Your task to perform on an android device: turn vacation reply on in the gmail app Image 0: 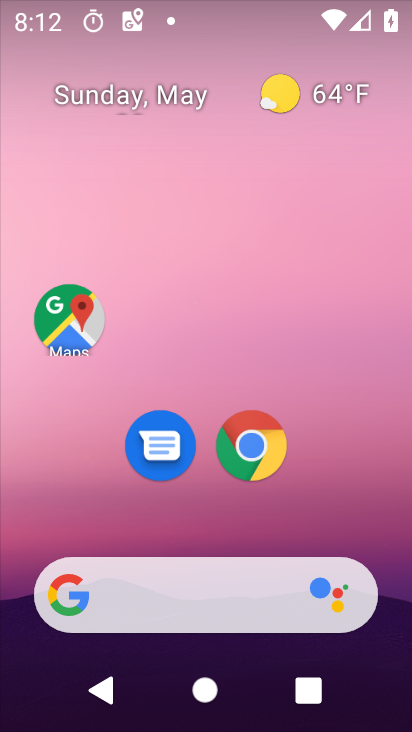
Step 0: drag from (191, 541) to (224, 20)
Your task to perform on an android device: turn vacation reply on in the gmail app Image 1: 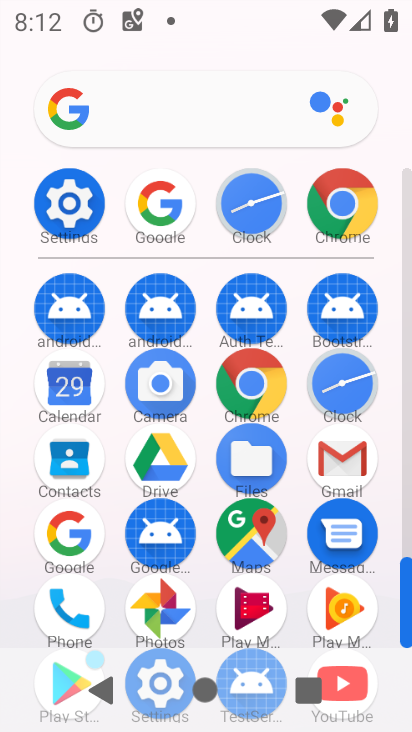
Step 1: click (325, 464)
Your task to perform on an android device: turn vacation reply on in the gmail app Image 2: 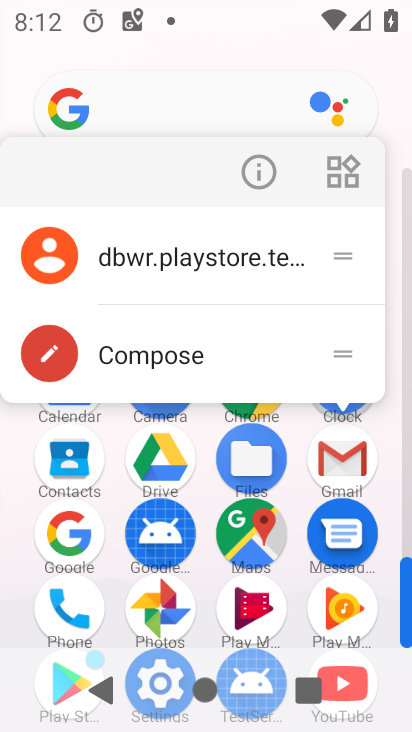
Step 2: click (266, 174)
Your task to perform on an android device: turn vacation reply on in the gmail app Image 3: 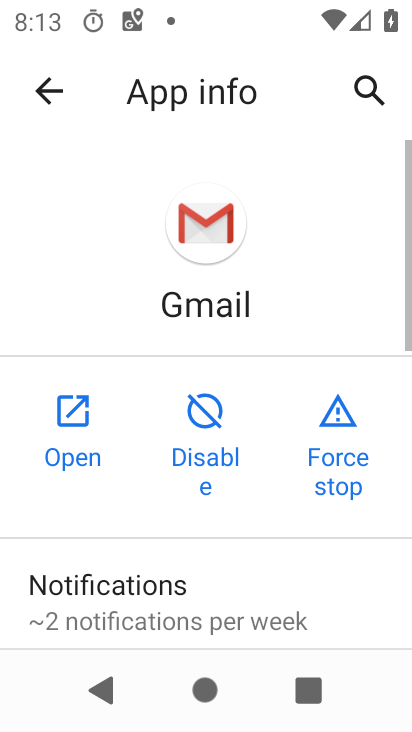
Step 3: click (82, 420)
Your task to perform on an android device: turn vacation reply on in the gmail app Image 4: 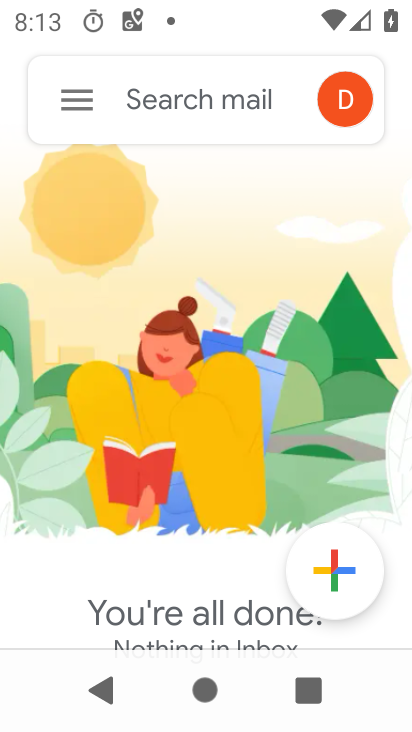
Step 4: click (70, 110)
Your task to perform on an android device: turn vacation reply on in the gmail app Image 5: 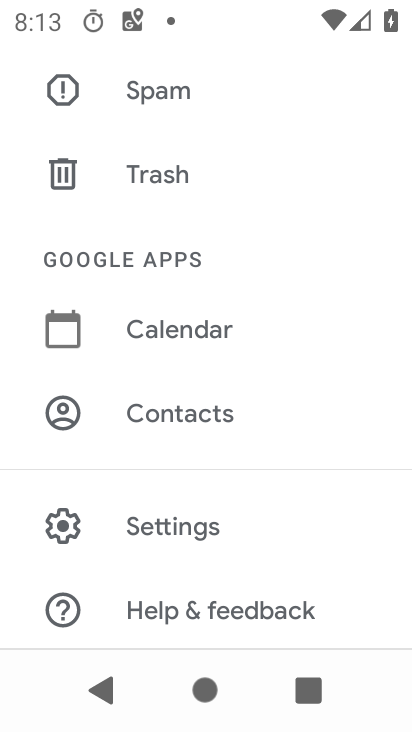
Step 5: drag from (196, 574) to (330, 42)
Your task to perform on an android device: turn vacation reply on in the gmail app Image 6: 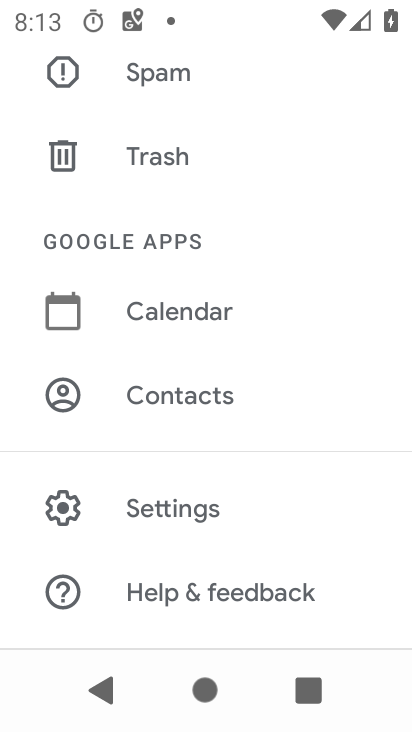
Step 6: click (176, 500)
Your task to perform on an android device: turn vacation reply on in the gmail app Image 7: 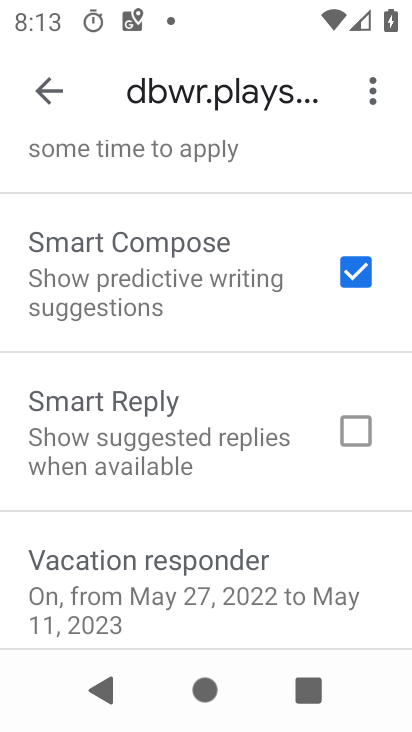
Step 7: drag from (241, 274) to (249, 726)
Your task to perform on an android device: turn vacation reply on in the gmail app Image 8: 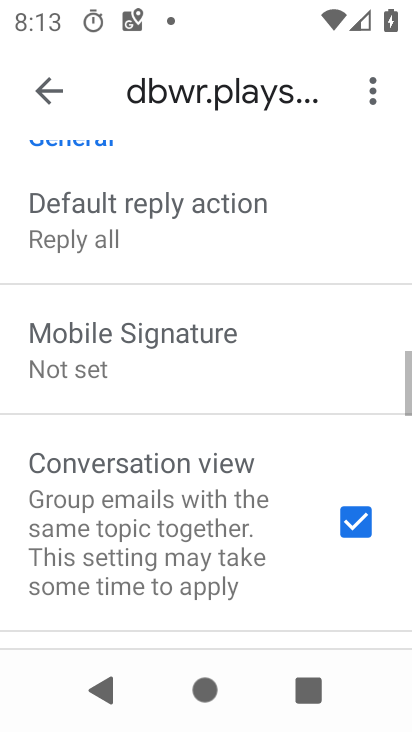
Step 8: drag from (224, 650) to (402, 41)
Your task to perform on an android device: turn vacation reply on in the gmail app Image 9: 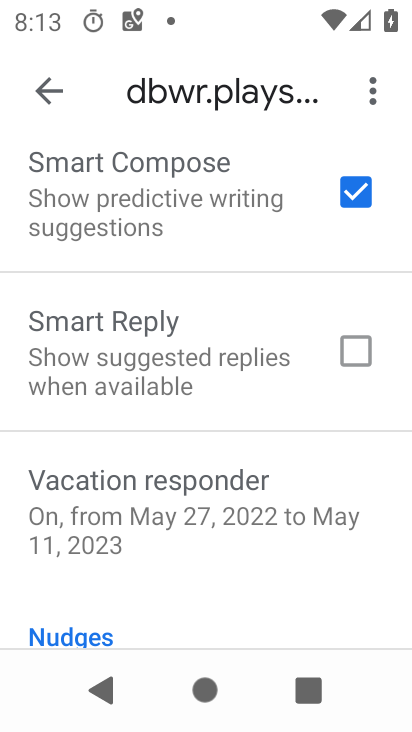
Step 9: click (133, 512)
Your task to perform on an android device: turn vacation reply on in the gmail app Image 10: 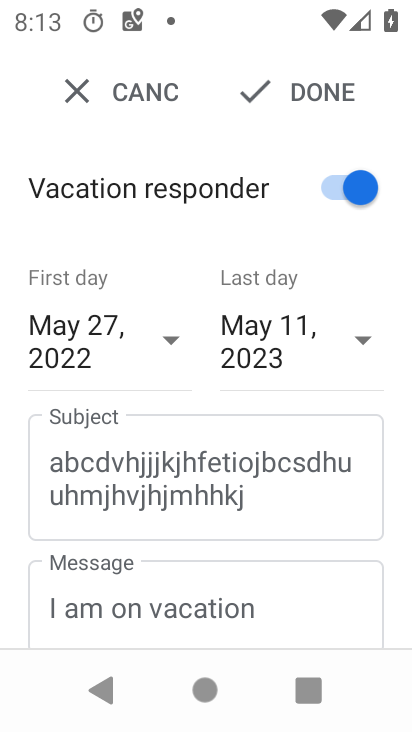
Step 10: click (306, 92)
Your task to perform on an android device: turn vacation reply on in the gmail app Image 11: 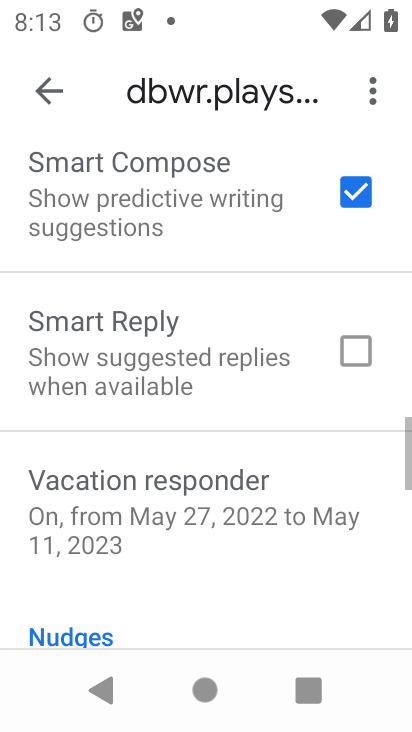
Step 11: task complete